Your task to perform on an android device: move a message to another label in the gmail app Image 0: 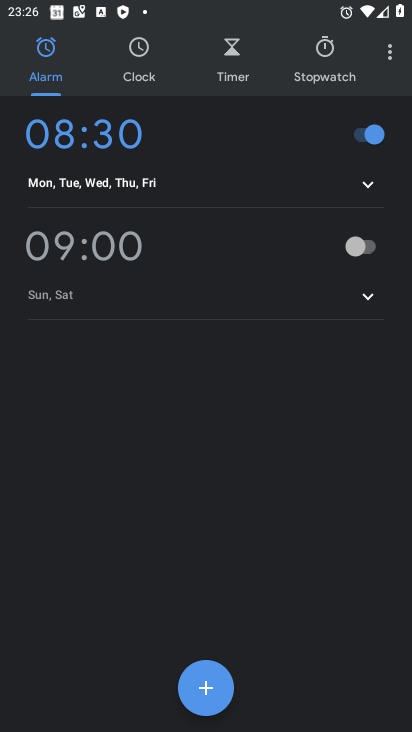
Step 0: press home button
Your task to perform on an android device: move a message to another label in the gmail app Image 1: 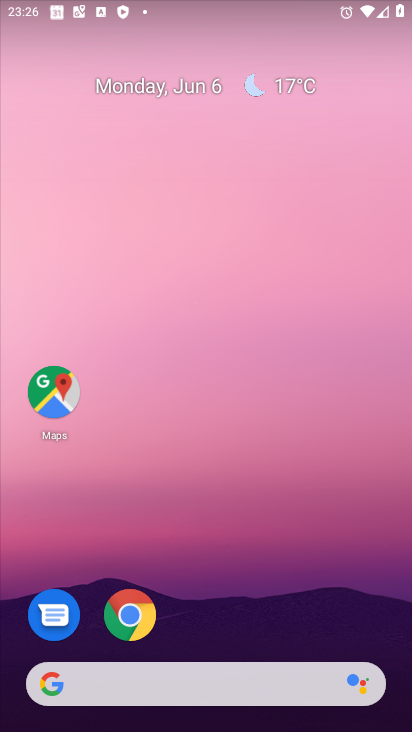
Step 1: drag from (396, 717) to (359, 92)
Your task to perform on an android device: move a message to another label in the gmail app Image 2: 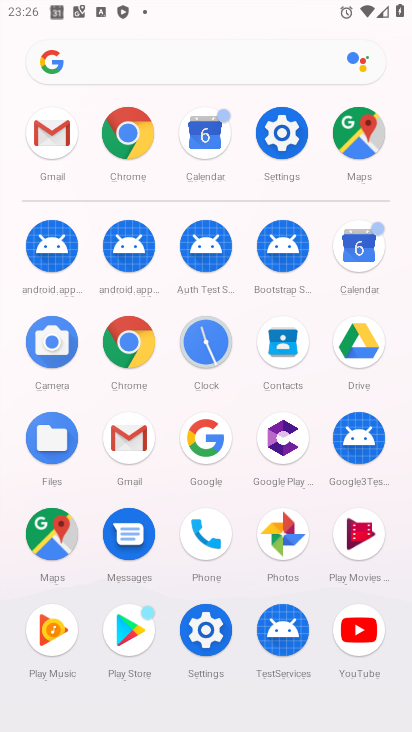
Step 2: click (119, 432)
Your task to perform on an android device: move a message to another label in the gmail app Image 3: 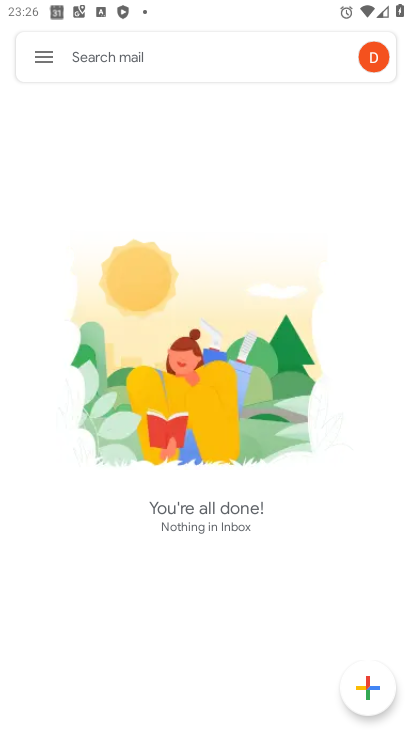
Step 3: click (42, 48)
Your task to perform on an android device: move a message to another label in the gmail app Image 4: 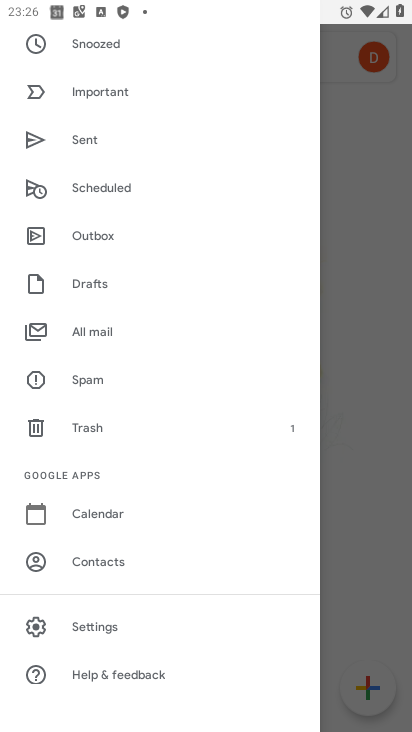
Step 4: drag from (229, 82) to (270, 594)
Your task to perform on an android device: move a message to another label in the gmail app Image 5: 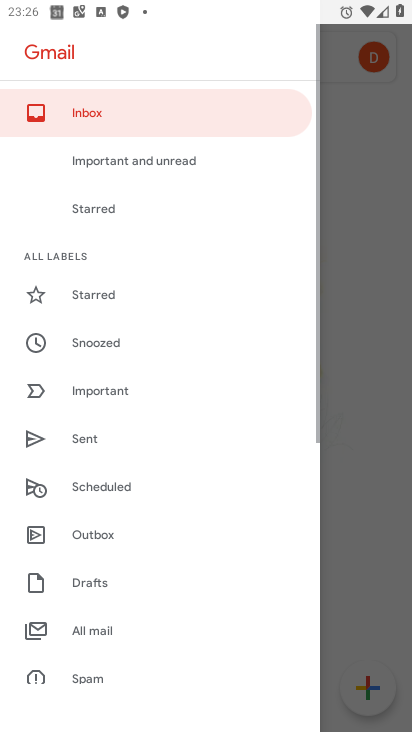
Step 5: click (134, 107)
Your task to perform on an android device: move a message to another label in the gmail app Image 6: 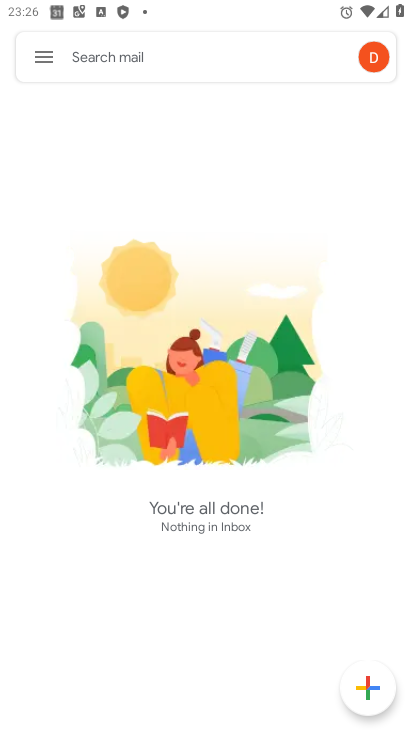
Step 6: task complete